Your task to perform on an android device: install app "Google Translate" Image 0: 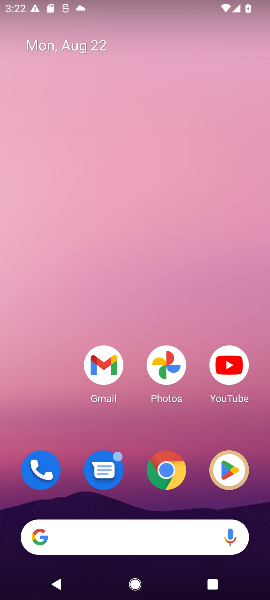
Step 0: drag from (171, 484) to (151, 172)
Your task to perform on an android device: install app "Google Translate" Image 1: 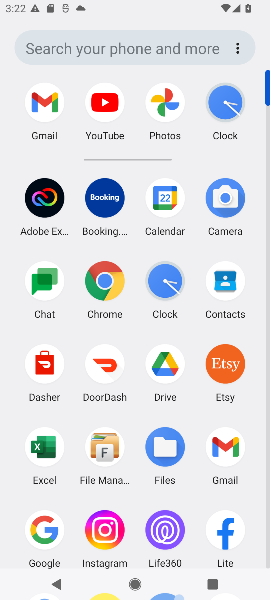
Step 1: drag from (105, 513) to (121, 197)
Your task to perform on an android device: install app "Google Translate" Image 2: 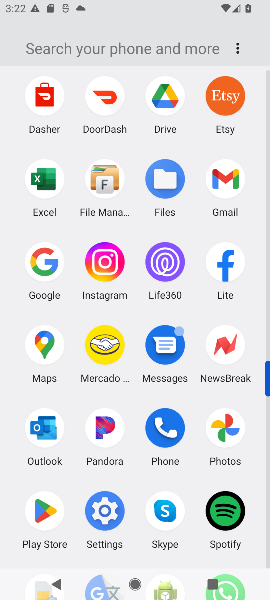
Step 2: click (36, 520)
Your task to perform on an android device: install app "Google Translate" Image 3: 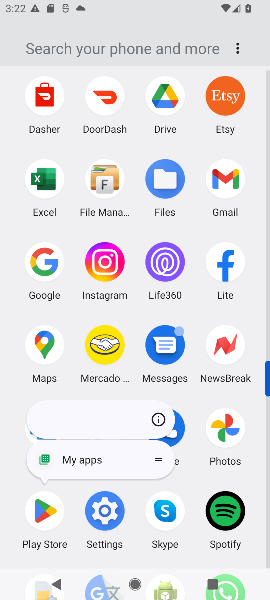
Step 3: click (42, 509)
Your task to perform on an android device: install app "Google Translate" Image 4: 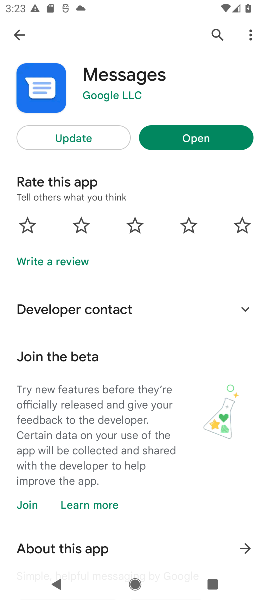
Step 4: click (15, 30)
Your task to perform on an android device: install app "Google Translate" Image 5: 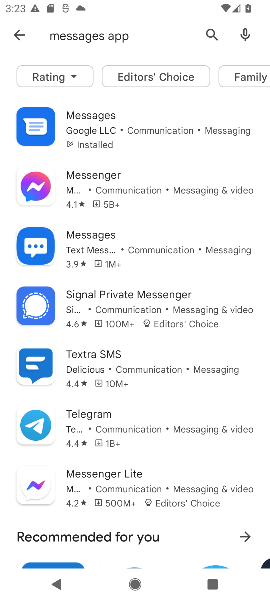
Step 5: click (21, 32)
Your task to perform on an android device: install app "Google Translate" Image 6: 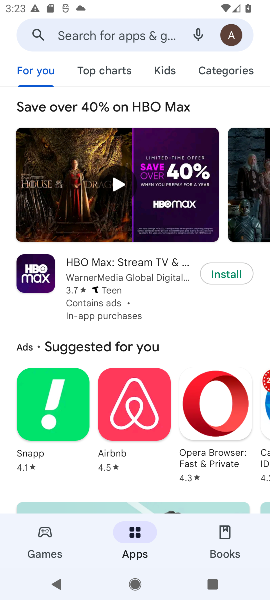
Step 6: click (100, 32)
Your task to perform on an android device: install app "Google Translate" Image 7: 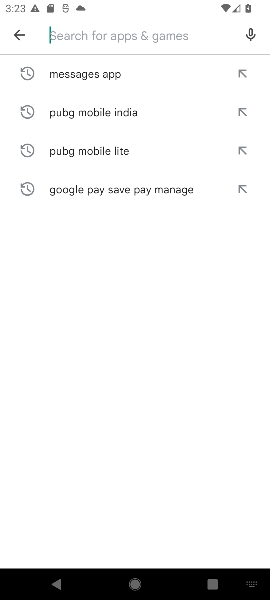
Step 7: type "Google Translate "
Your task to perform on an android device: install app "Google Translate" Image 8: 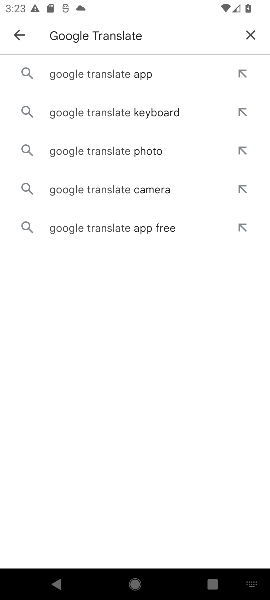
Step 8: click (77, 78)
Your task to perform on an android device: install app "Google Translate" Image 9: 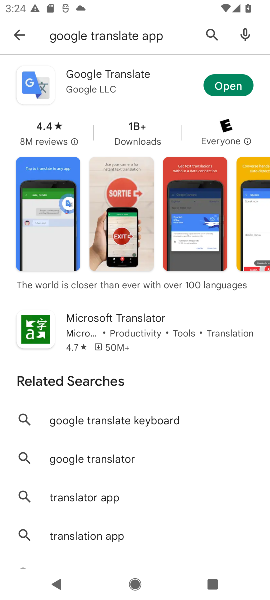
Step 9: click (217, 85)
Your task to perform on an android device: install app "Google Translate" Image 10: 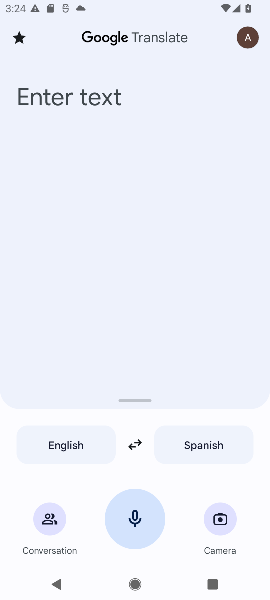
Step 10: task complete